Your task to perform on an android device: What's the latest video from Gameranx? Image 0: 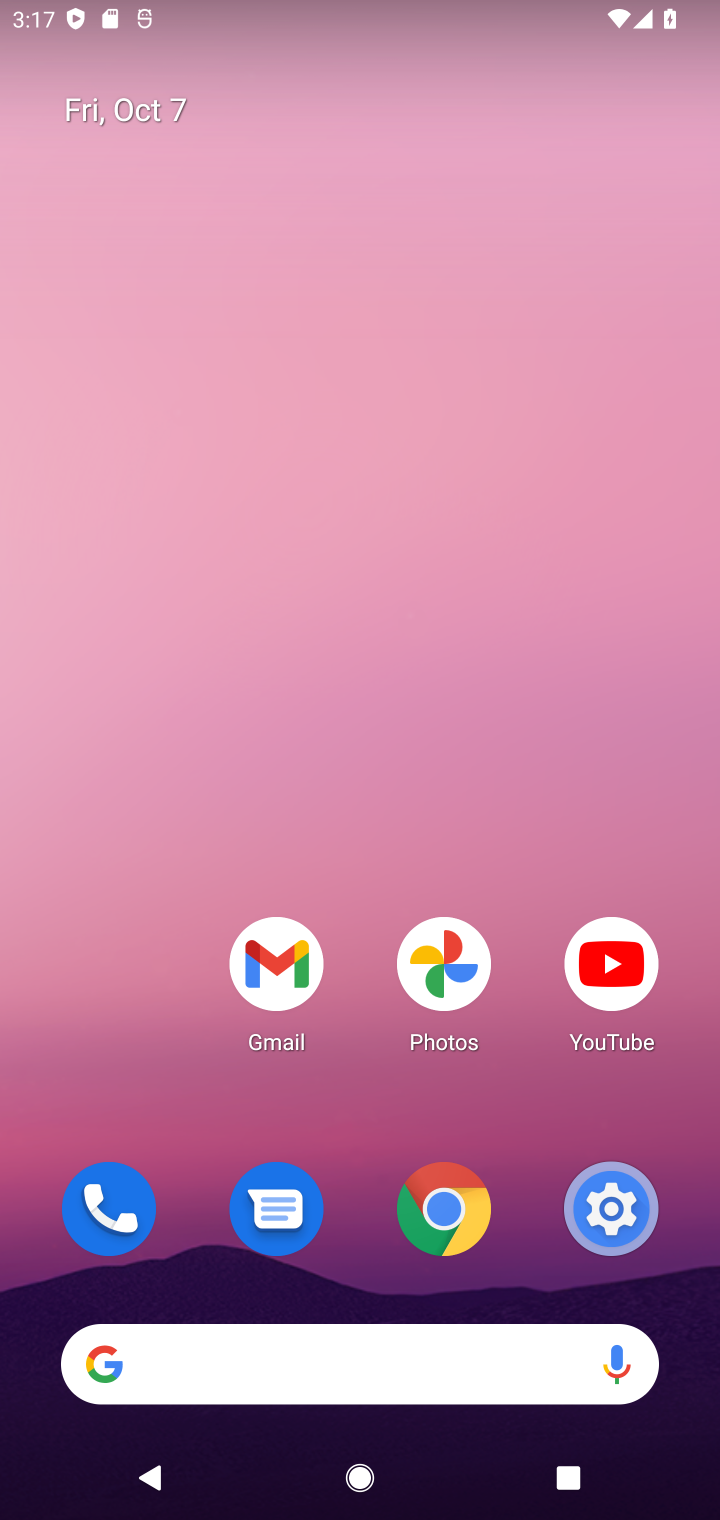
Step 0: click (323, 1351)
Your task to perform on an android device: What's the latest video from Gameranx? Image 1: 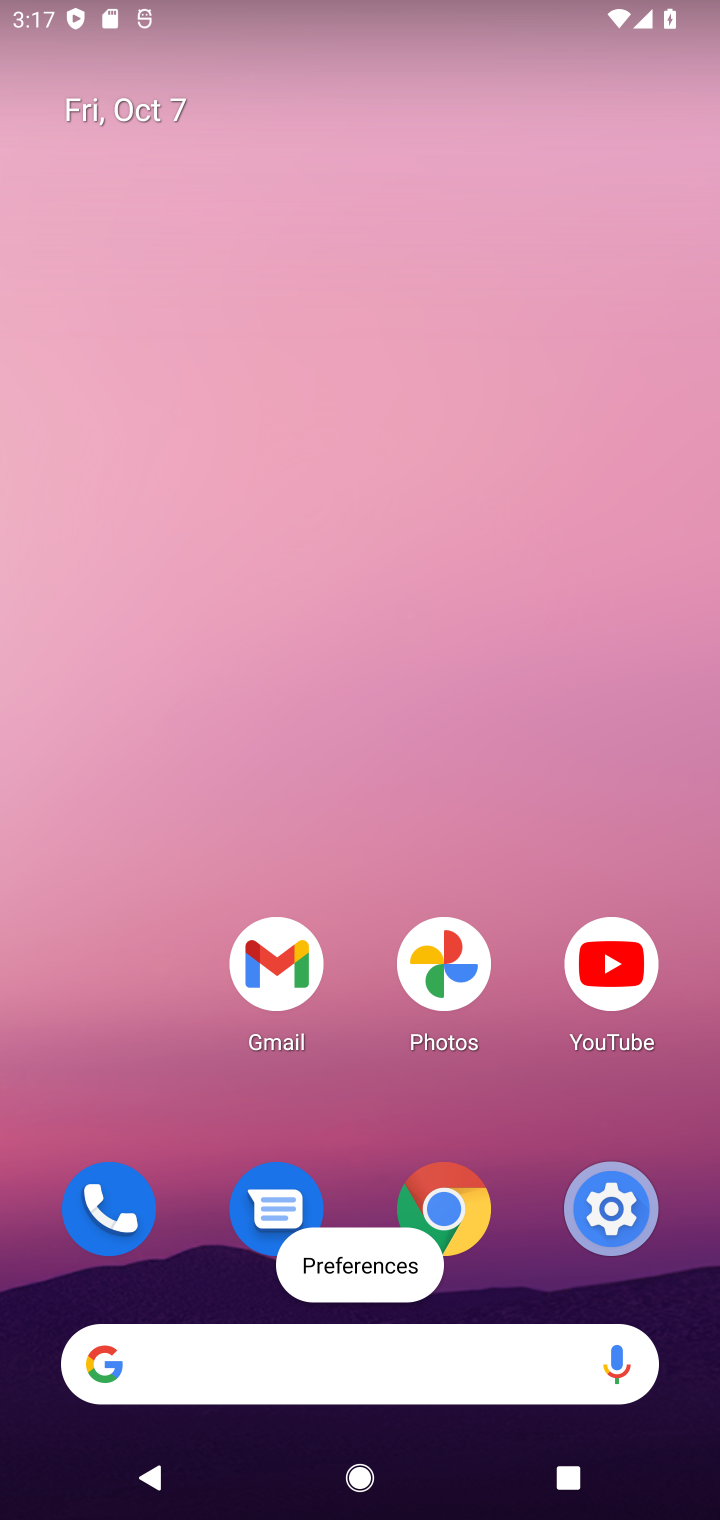
Step 1: click (164, 1347)
Your task to perform on an android device: What's the latest video from Gameranx? Image 2: 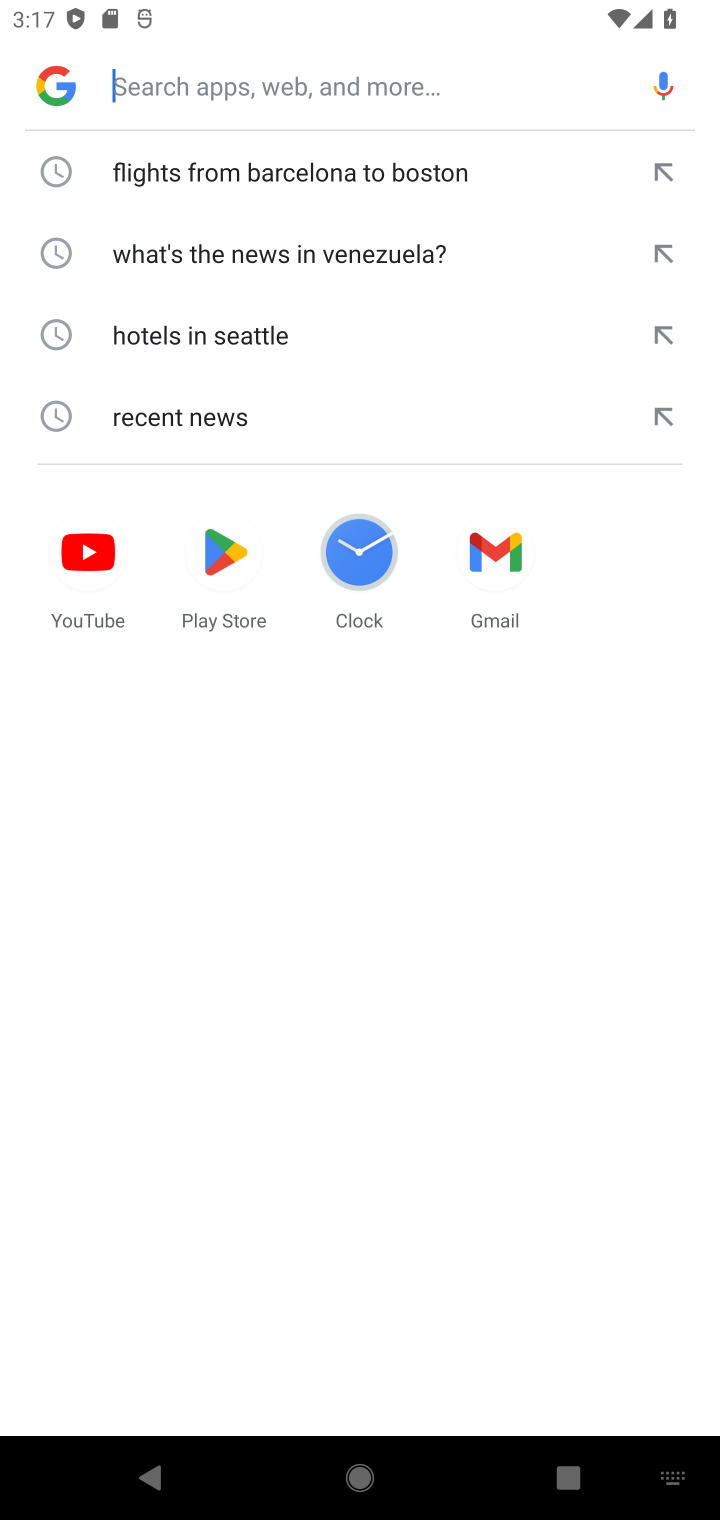
Step 2: press enter
Your task to perform on an android device: What's the latest video from Gameranx? Image 3: 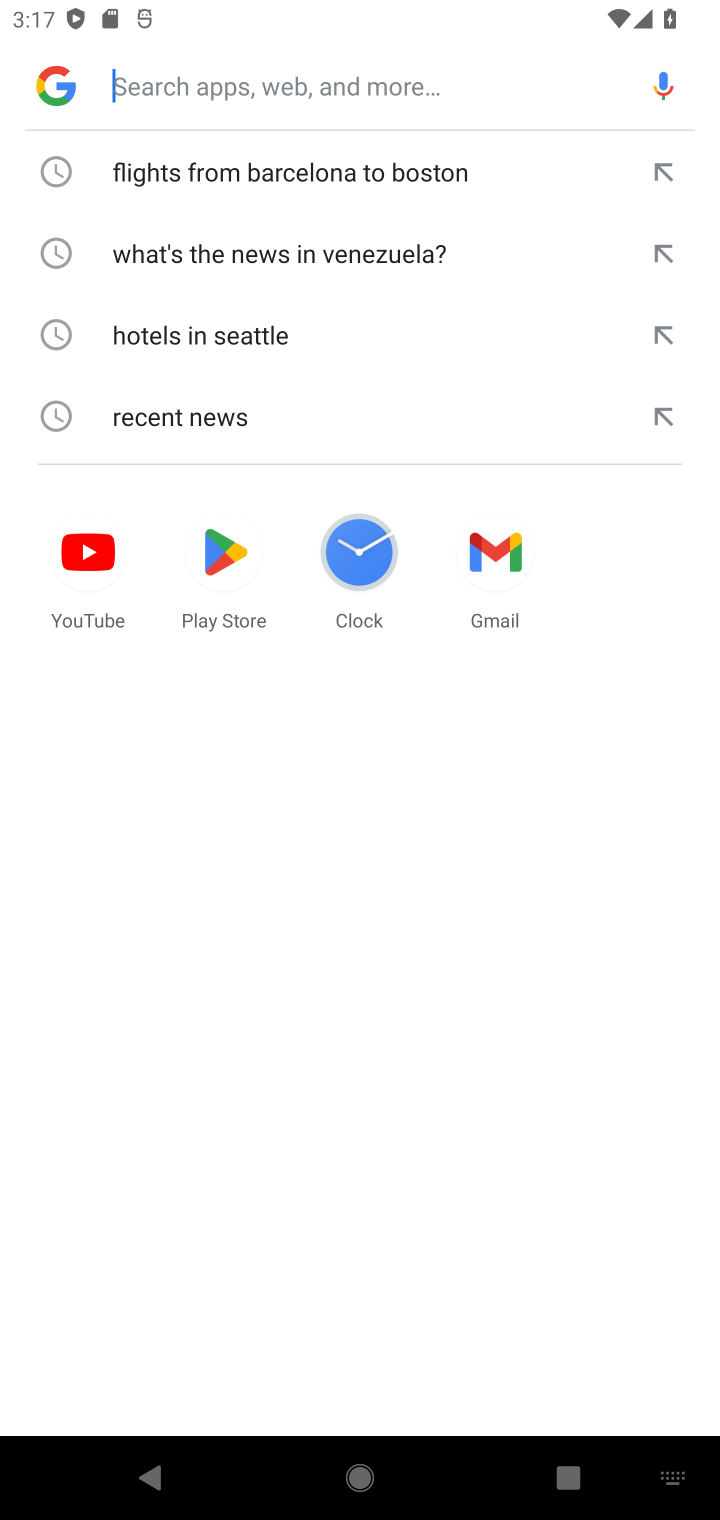
Step 3: type "What's the latest video from Gameranx?"
Your task to perform on an android device: What's the latest video from Gameranx? Image 4: 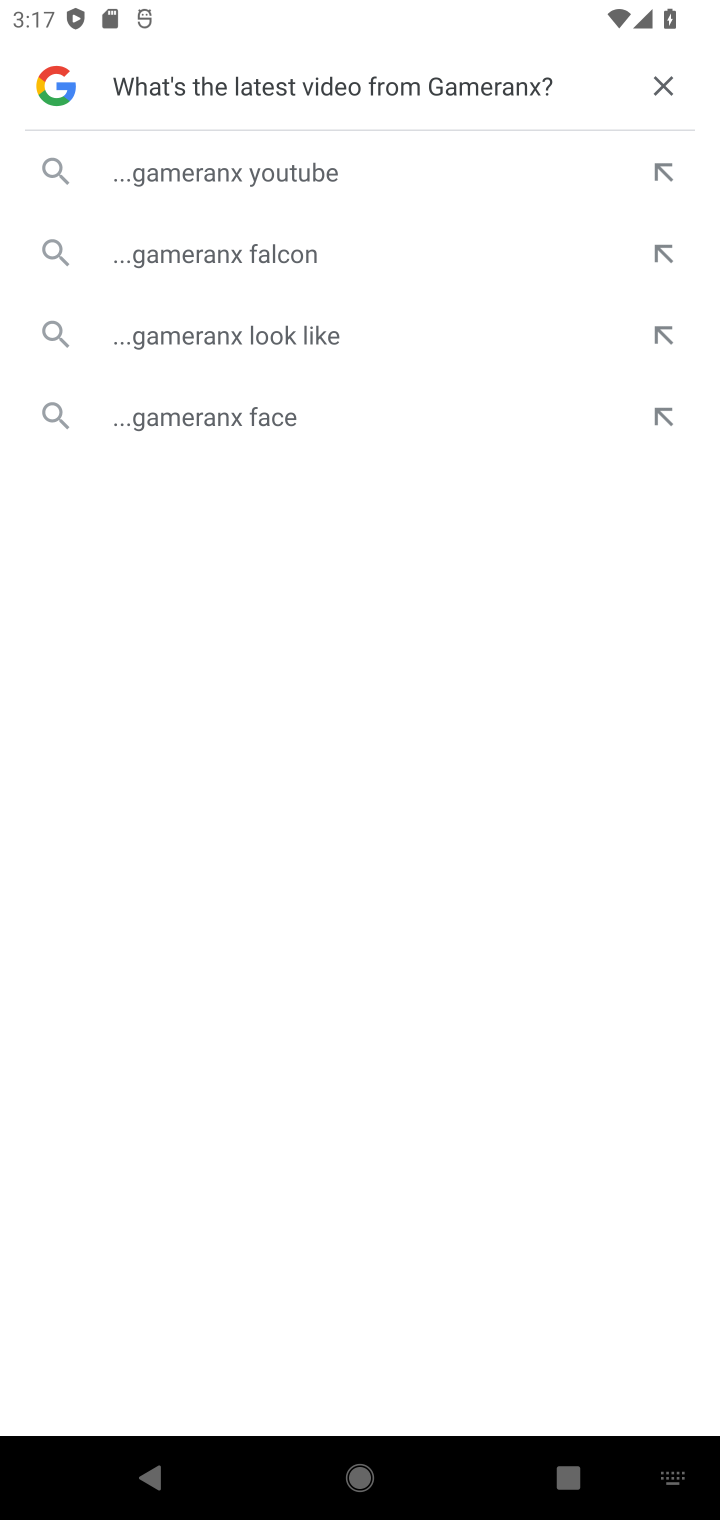
Step 4: press enter
Your task to perform on an android device: What's the latest video from Gameranx? Image 5: 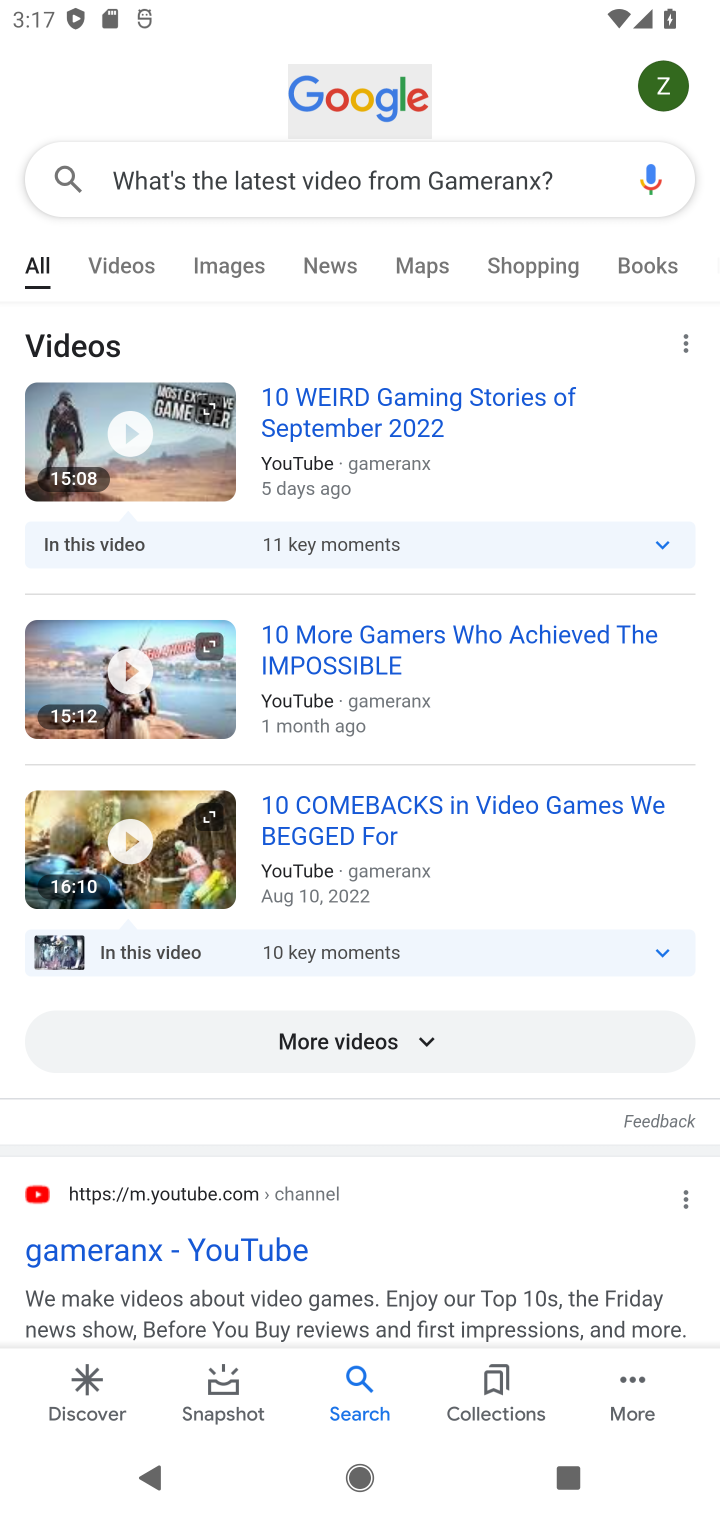
Step 5: drag from (470, 1189) to (528, 763)
Your task to perform on an android device: What's the latest video from Gameranx? Image 6: 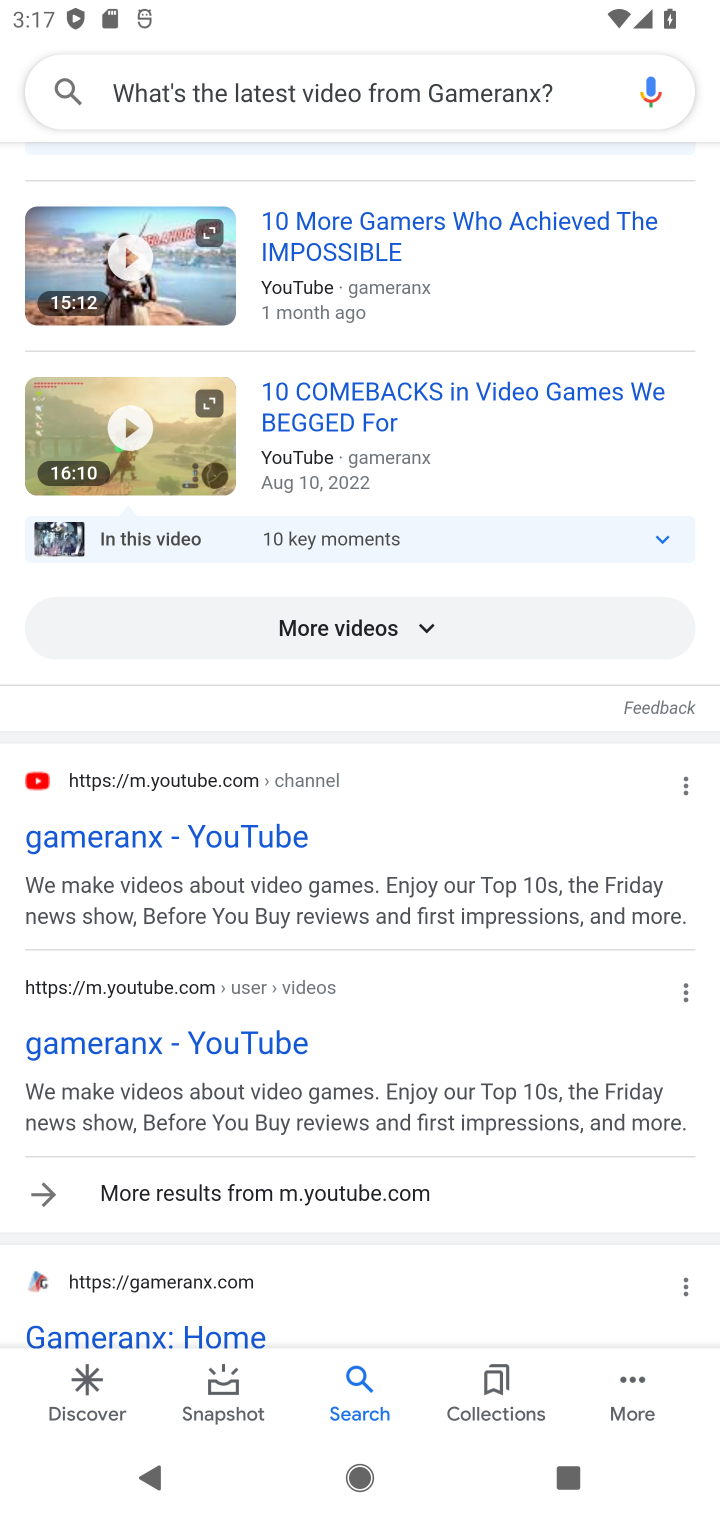
Step 6: click (218, 829)
Your task to perform on an android device: What's the latest video from Gameranx? Image 7: 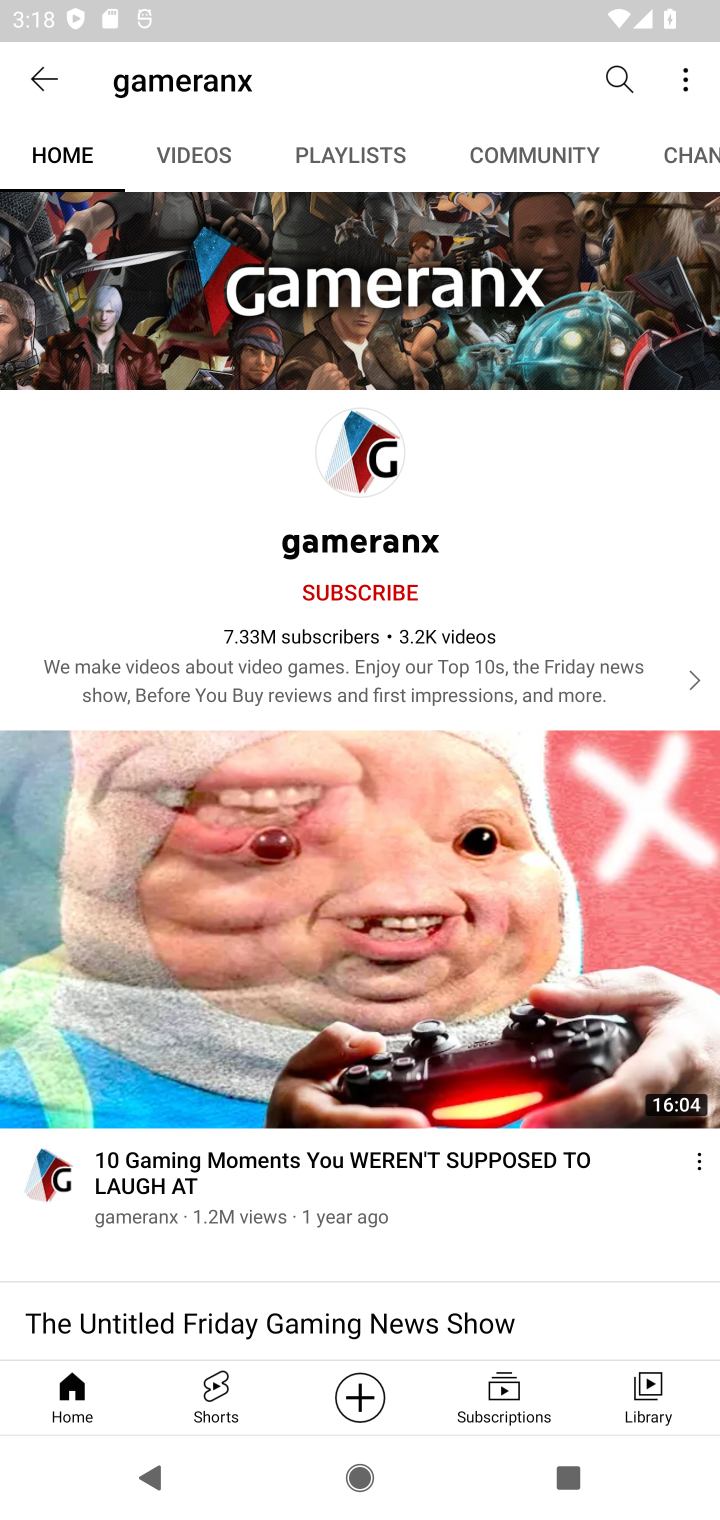
Step 7: task complete